Your task to perform on an android device: turn on the 12-hour format for clock Image 0: 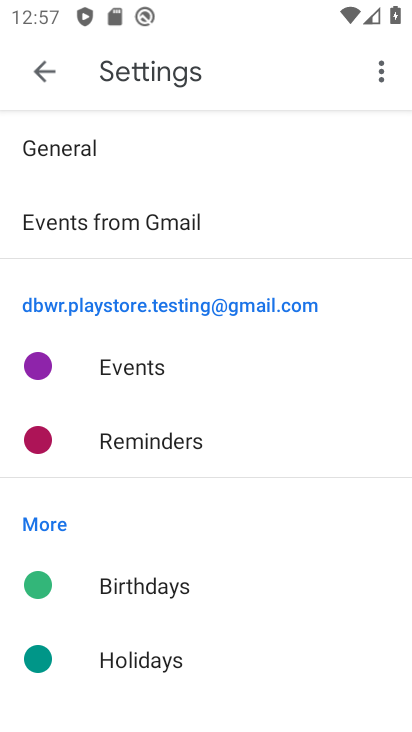
Step 0: press home button
Your task to perform on an android device: turn on the 12-hour format for clock Image 1: 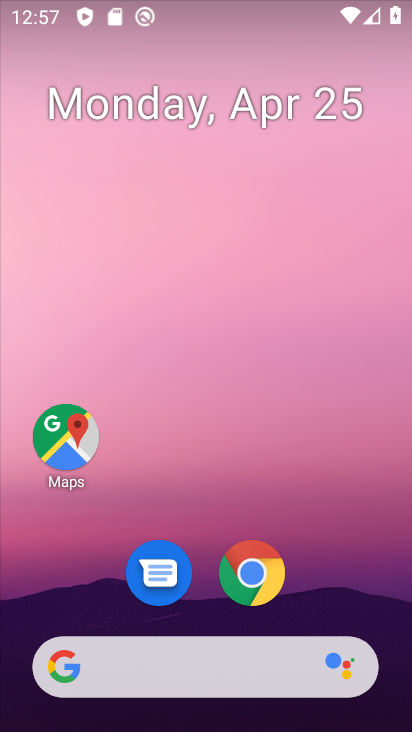
Step 1: drag from (200, 619) to (203, 125)
Your task to perform on an android device: turn on the 12-hour format for clock Image 2: 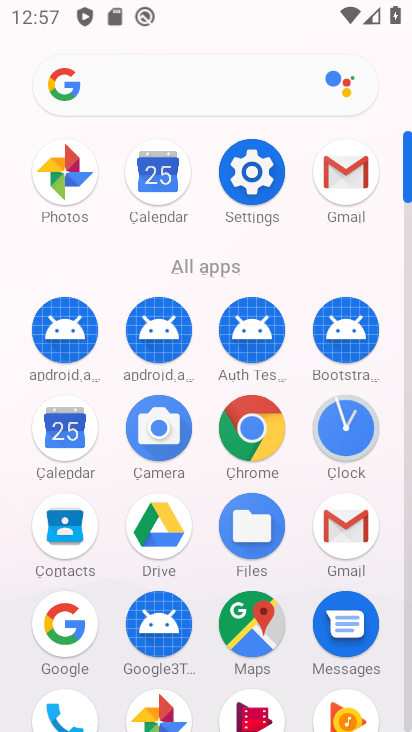
Step 2: click (341, 439)
Your task to perform on an android device: turn on the 12-hour format for clock Image 3: 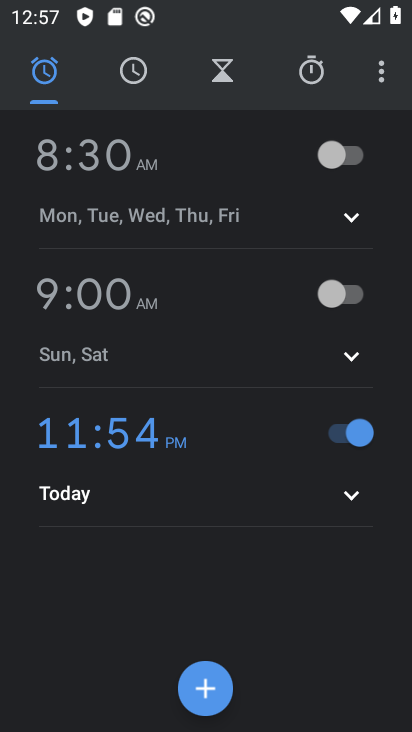
Step 3: click (379, 69)
Your task to perform on an android device: turn on the 12-hour format for clock Image 4: 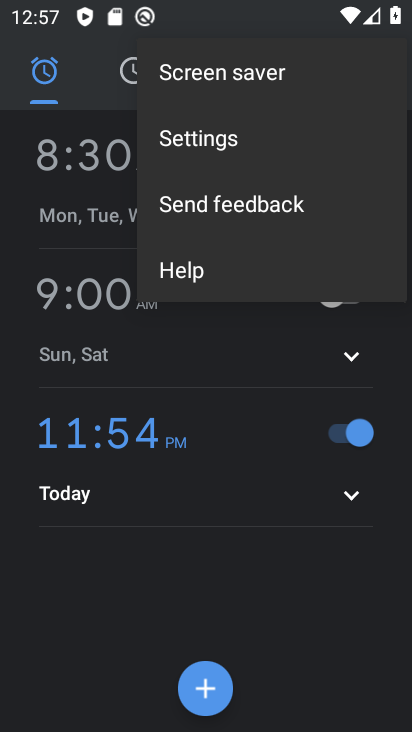
Step 4: click (209, 142)
Your task to perform on an android device: turn on the 12-hour format for clock Image 5: 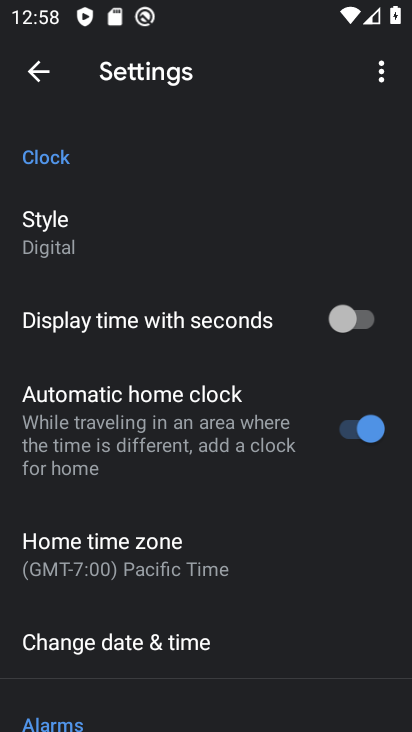
Step 5: click (115, 655)
Your task to perform on an android device: turn on the 12-hour format for clock Image 6: 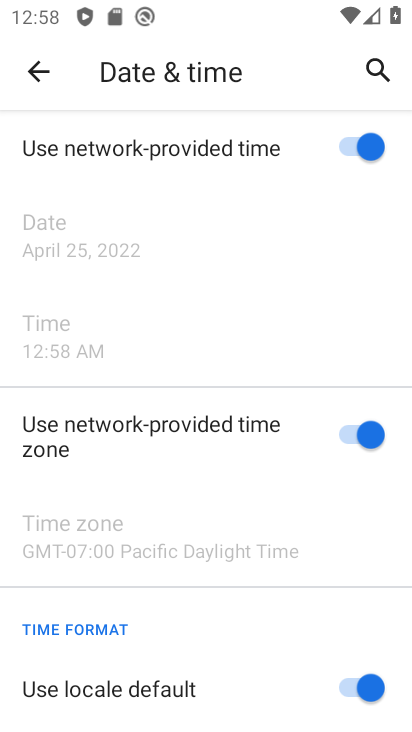
Step 6: task complete